Your task to perform on an android device: toggle priority inbox in the gmail app Image 0: 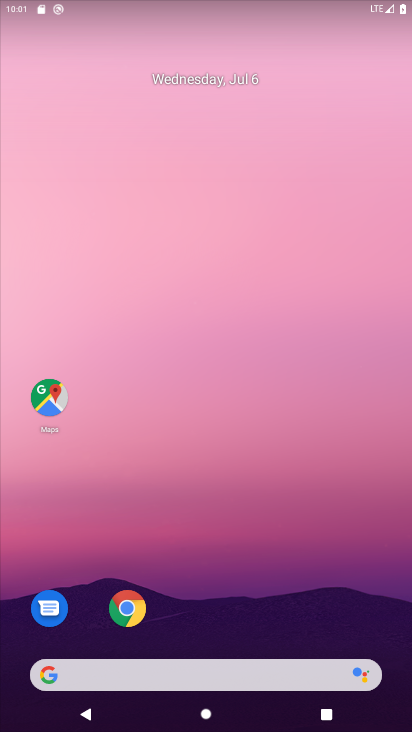
Step 0: drag from (246, 440) to (283, 34)
Your task to perform on an android device: toggle priority inbox in the gmail app Image 1: 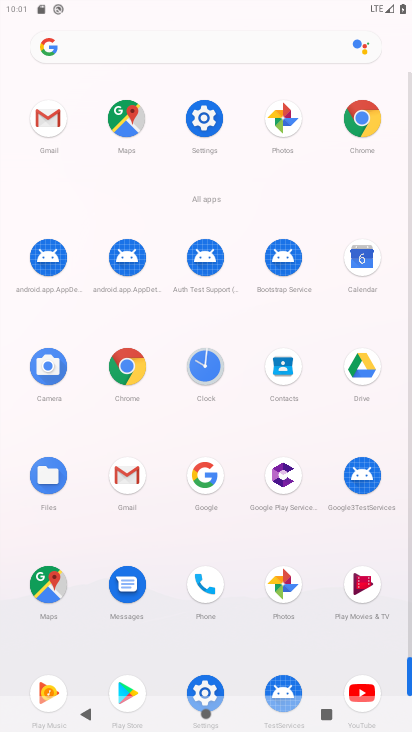
Step 1: click (122, 468)
Your task to perform on an android device: toggle priority inbox in the gmail app Image 2: 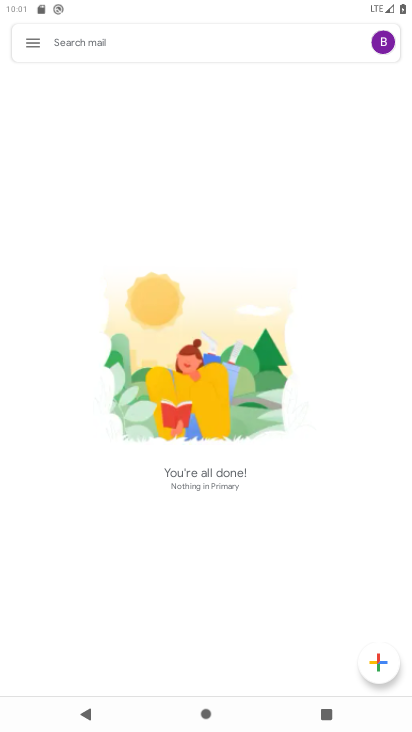
Step 2: click (30, 35)
Your task to perform on an android device: toggle priority inbox in the gmail app Image 3: 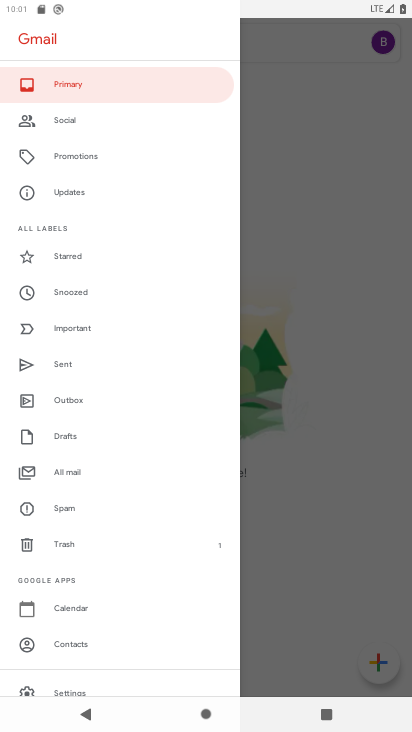
Step 3: drag from (83, 626) to (114, 403)
Your task to perform on an android device: toggle priority inbox in the gmail app Image 4: 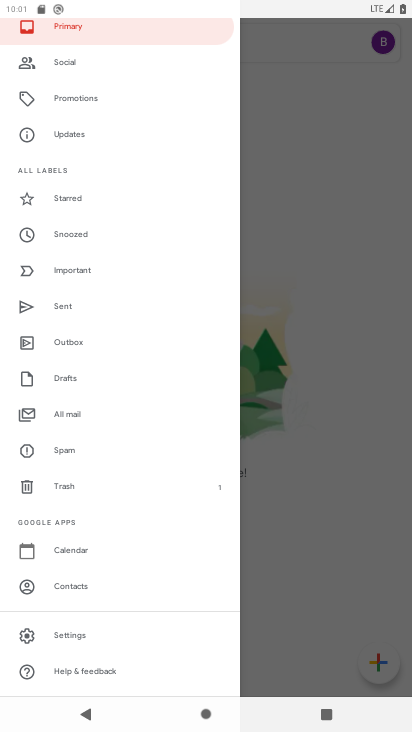
Step 4: click (79, 634)
Your task to perform on an android device: toggle priority inbox in the gmail app Image 5: 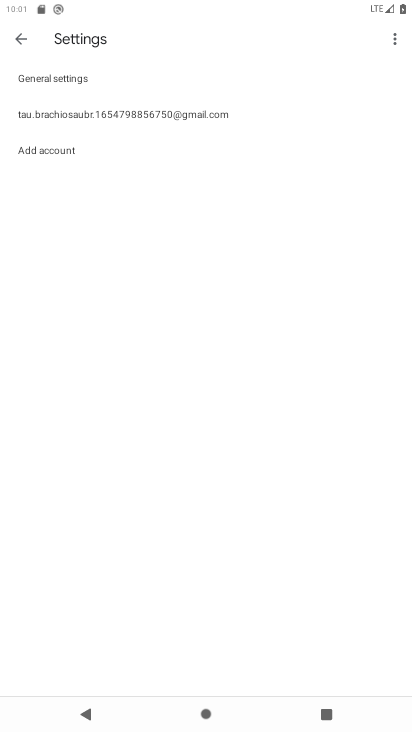
Step 5: click (102, 118)
Your task to perform on an android device: toggle priority inbox in the gmail app Image 6: 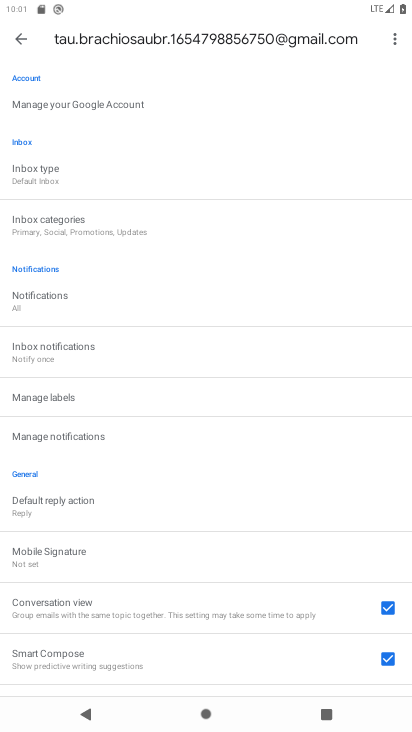
Step 6: click (60, 179)
Your task to perform on an android device: toggle priority inbox in the gmail app Image 7: 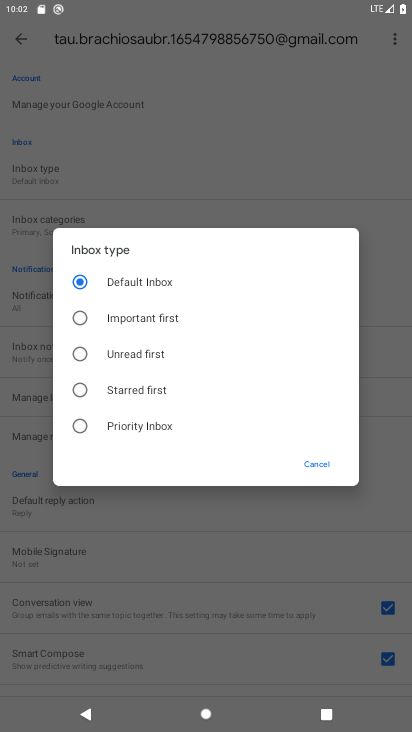
Step 7: click (117, 425)
Your task to perform on an android device: toggle priority inbox in the gmail app Image 8: 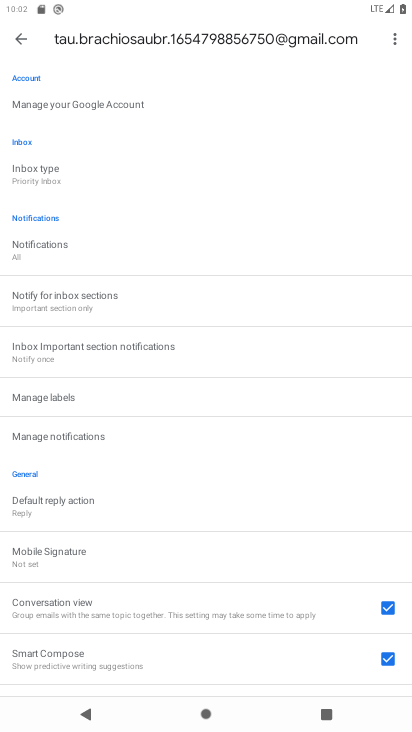
Step 8: task complete